Your task to perform on an android device: Open battery settings Image 0: 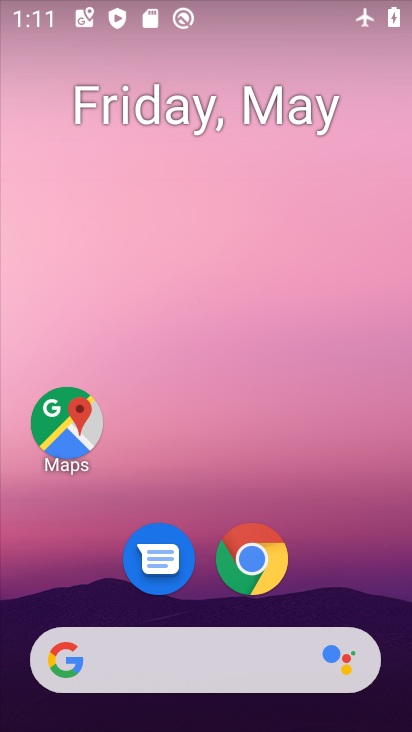
Step 0: drag from (344, 528) to (280, 163)
Your task to perform on an android device: Open battery settings Image 1: 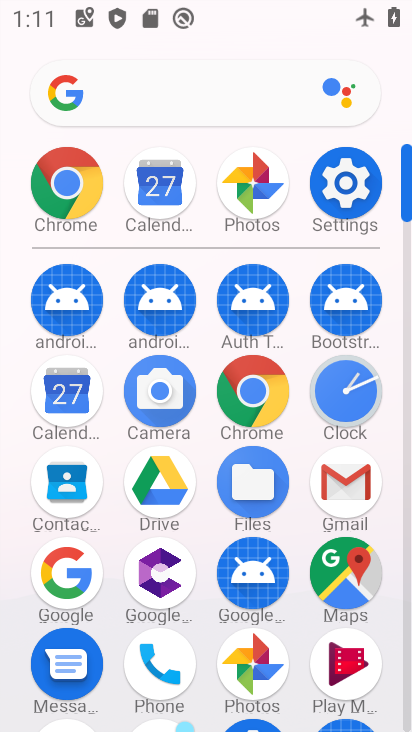
Step 1: click (336, 174)
Your task to perform on an android device: Open battery settings Image 2: 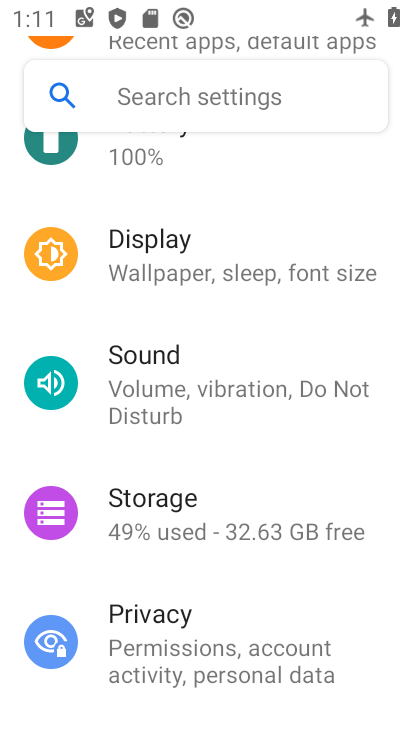
Step 2: drag from (249, 268) to (175, 567)
Your task to perform on an android device: Open battery settings Image 3: 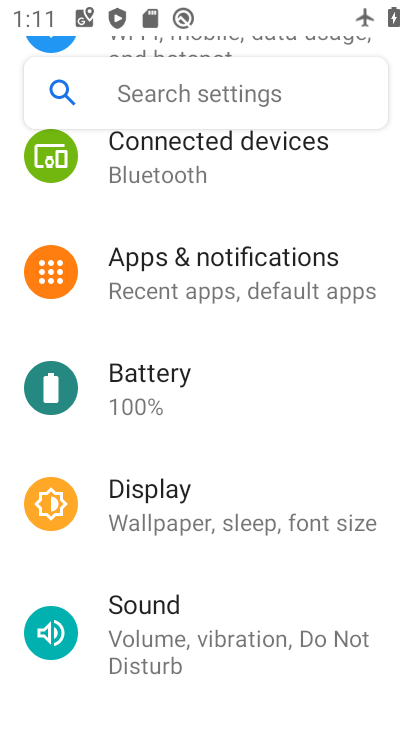
Step 3: click (193, 405)
Your task to perform on an android device: Open battery settings Image 4: 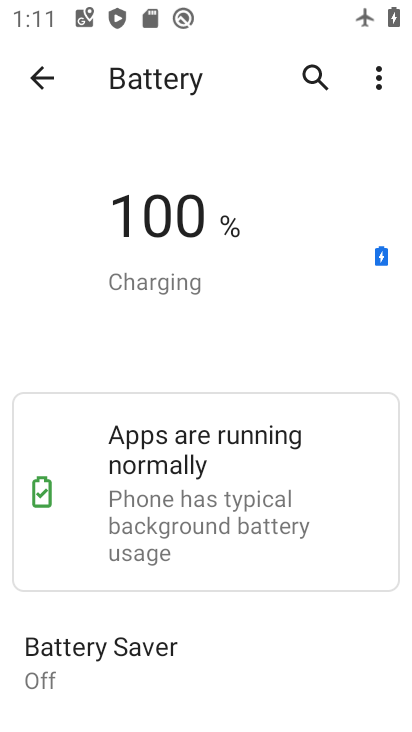
Step 4: task complete